Your task to perform on an android device: choose inbox layout in the gmail app Image 0: 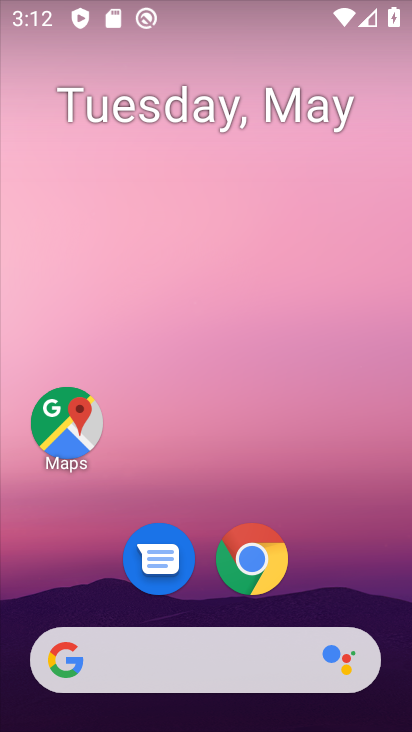
Step 0: drag from (345, 572) to (280, 109)
Your task to perform on an android device: choose inbox layout in the gmail app Image 1: 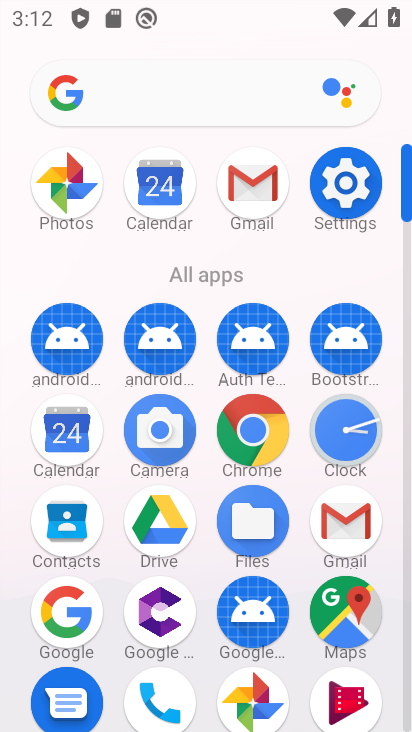
Step 1: click (251, 183)
Your task to perform on an android device: choose inbox layout in the gmail app Image 2: 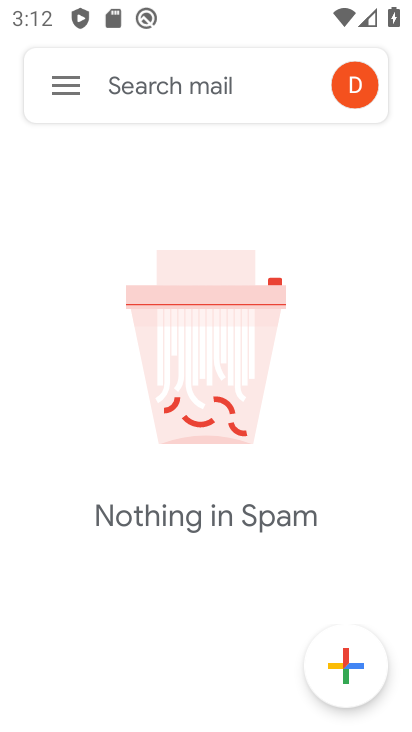
Step 2: click (68, 87)
Your task to perform on an android device: choose inbox layout in the gmail app Image 3: 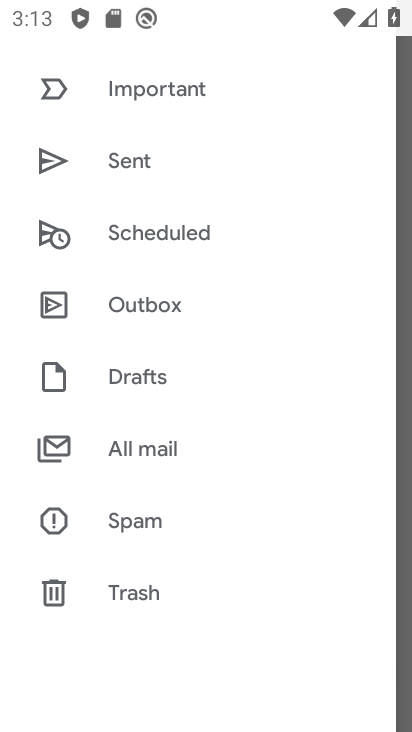
Step 3: drag from (133, 421) to (172, 314)
Your task to perform on an android device: choose inbox layout in the gmail app Image 4: 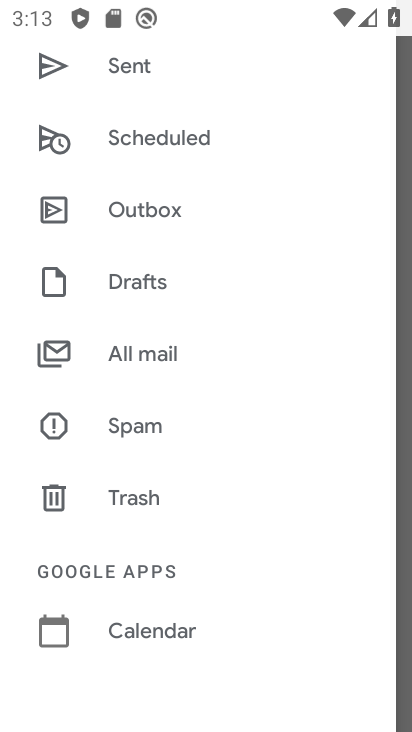
Step 4: drag from (141, 465) to (170, 383)
Your task to perform on an android device: choose inbox layout in the gmail app Image 5: 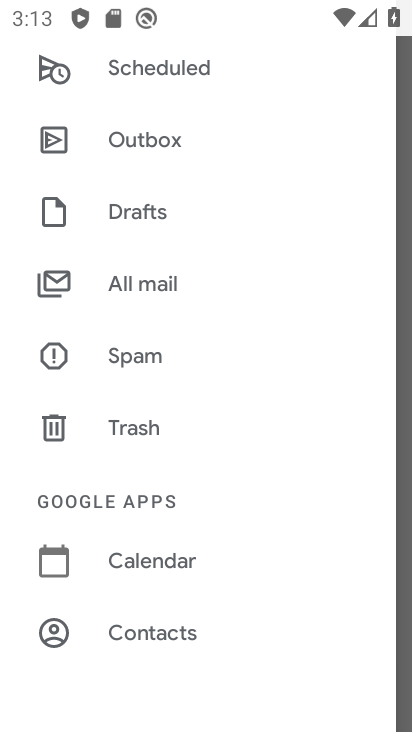
Step 5: drag from (135, 466) to (187, 376)
Your task to perform on an android device: choose inbox layout in the gmail app Image 6: 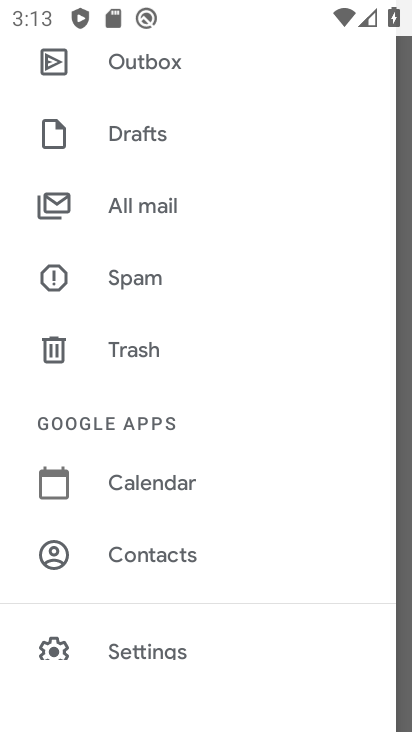
Step 6: drag from (146, 600) to (214, 513)
Your task to perform on an android device: choose inbox layout in the gmail app Image 7: 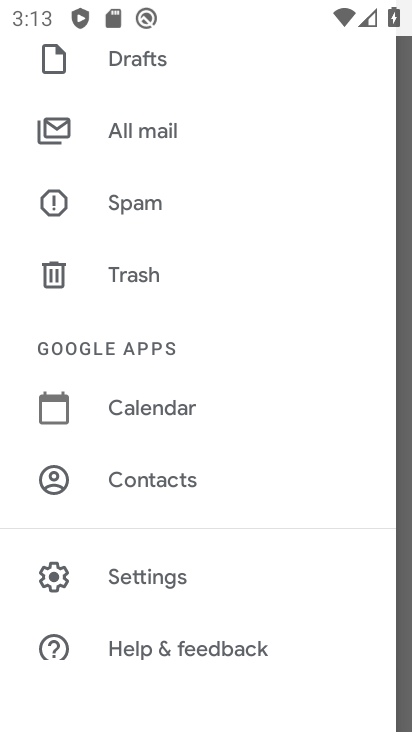
Step 7: click (154, 579)
Your task to perform on an android device: choose inbox layout in the gmail app Image 8: 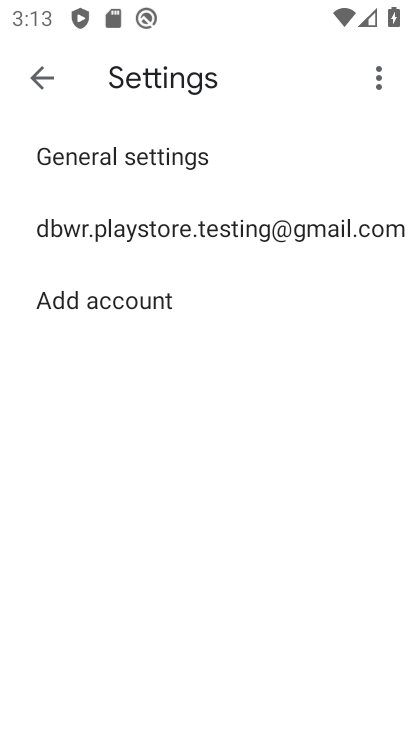
Step 8: click (189, 223)
Your task to perform on an android device: choose inbox layout in the gmail app Image 9: 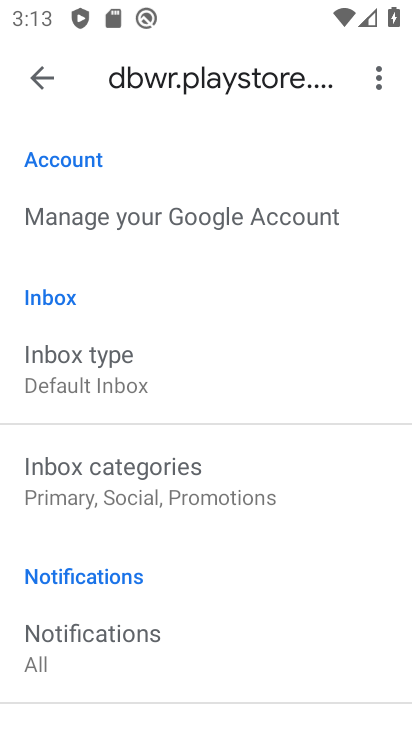
Step 9: click (95, 367)
Your task to perform on an android device: choose inbox layout in the gmail app Image 10: 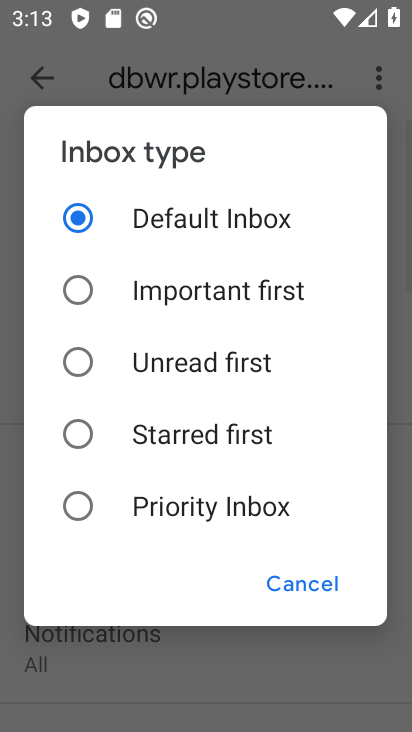
Step 10: click (86, 277)
Your task to perform on an android device: choose inbox layout in the gmail app Image 11: 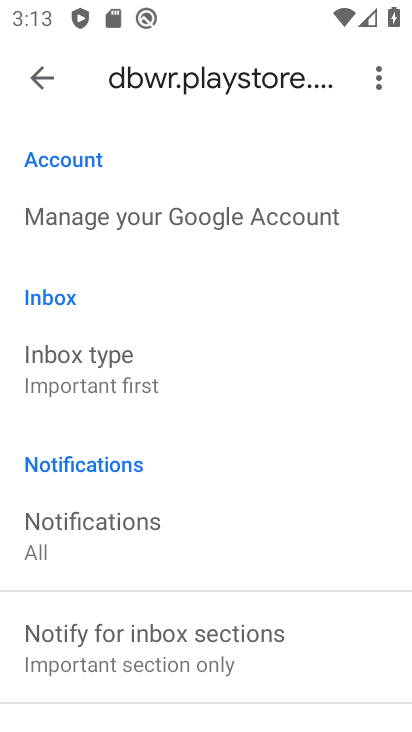
Step 11: task complete